Your task to perform on an android device: Search for Mexican restaurants on Maps Image 0: 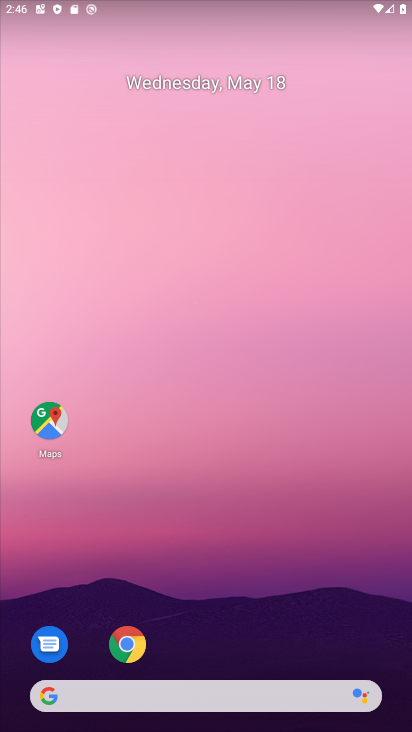
Step 0: click (50, 437)
Your task to perform on an android device: Search for Mexican restaurants on Maps Image 1: 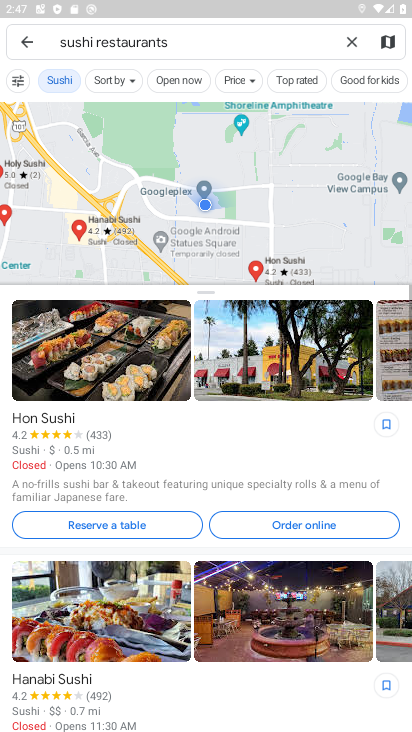
Step 1: click (352, 39)
Your task to perform on an android device: Search for Mexican restaurants on Maps Image 2: 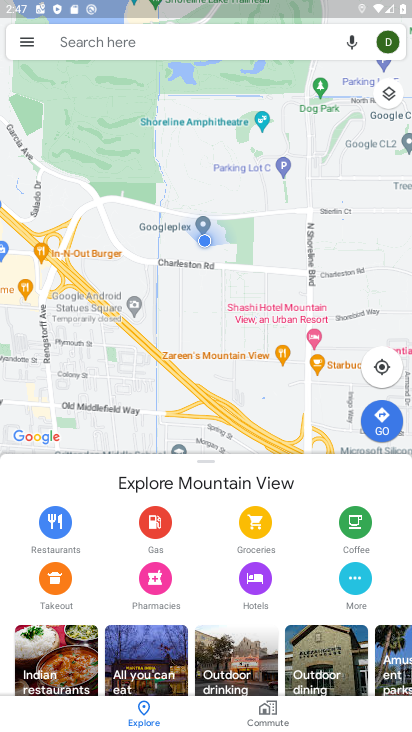
Step 2: click (245, 37)
Your task to perform on an android device: Search for Mexican restaurants on Maps Image 3: 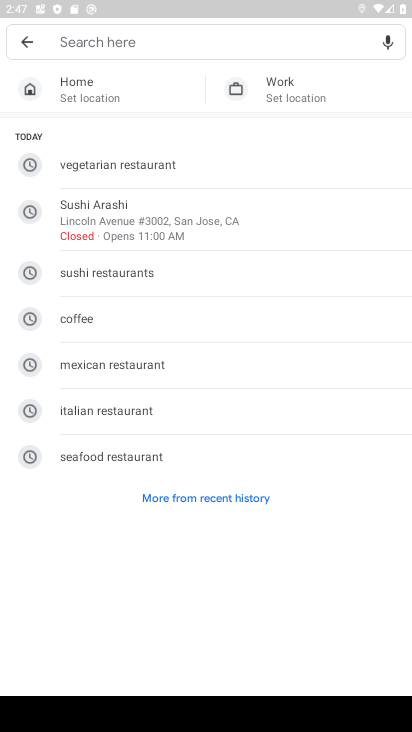
Step 3: click (129, 369)
Your task to perform on an android device: Search for Mexican restaurants on Maps Image 4: 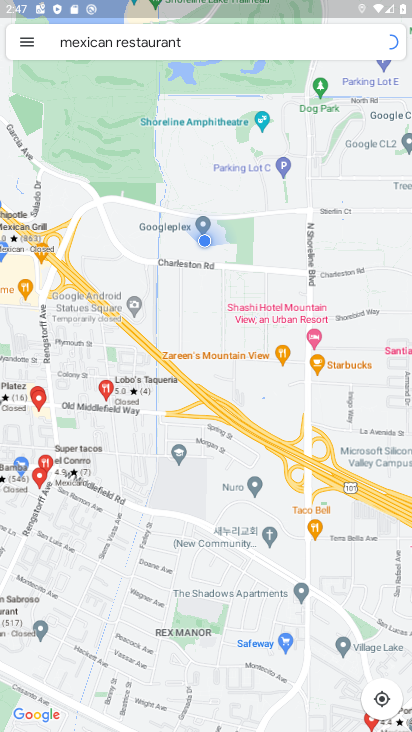
Step 4: task complete